Your task to perform on an android device: What's the weather? Image 0: 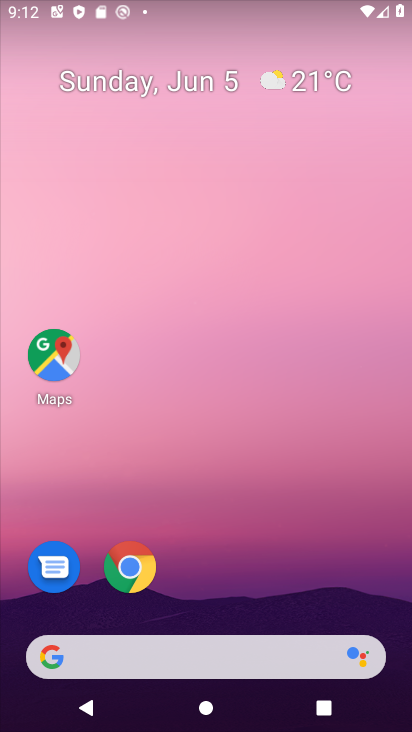
Step 0: drag from (263, 635) to (202, 242)
Your task to perform on an android device: What's the weather? Image 1: 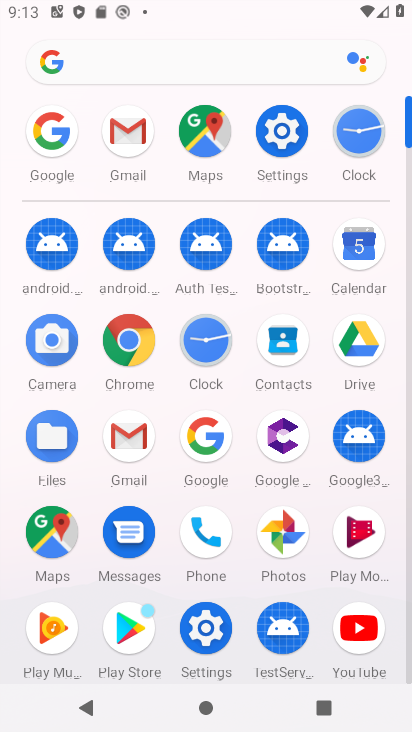
Step 1: click (211, 447)
Your task to perform on an android device: What's the weather? Image 2: 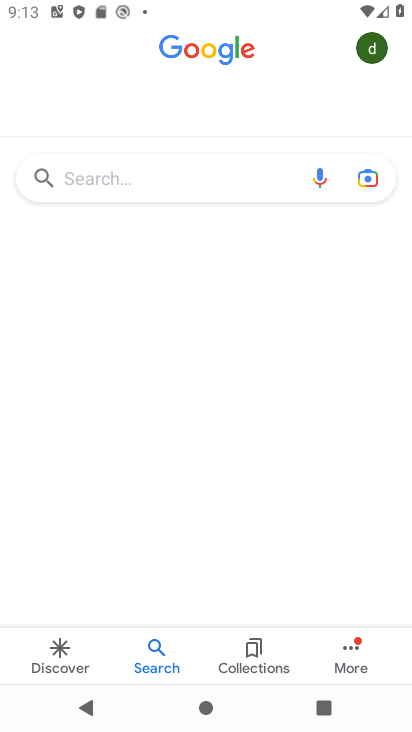
Step 2: click (146, 184)
Your task to perform on an android device: What's the weather? Image 3: 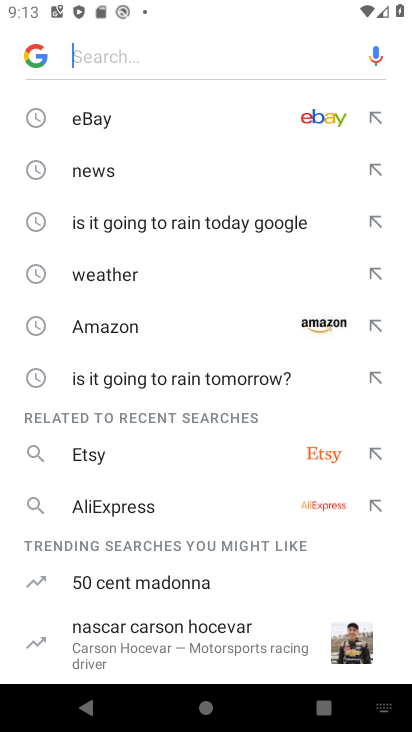
Step 3: drag from (134, 474) to (130, 121)
Your task to perform on an android device: What's the weather? Image 4: 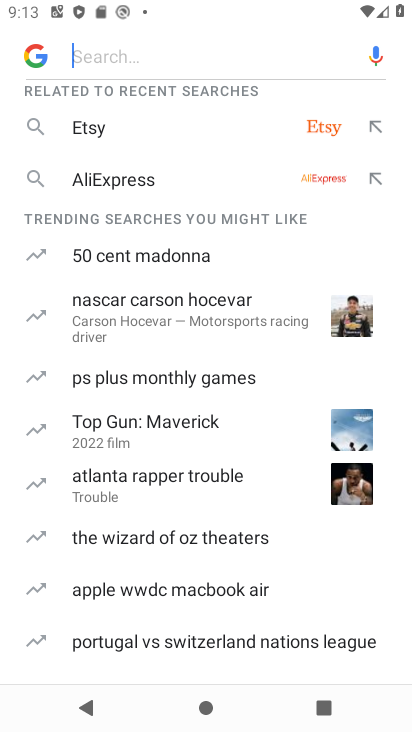
Step 4: drag from (140, 623) to (139, 344)
Your task to perform on an android device: What's the weather? Image 5: 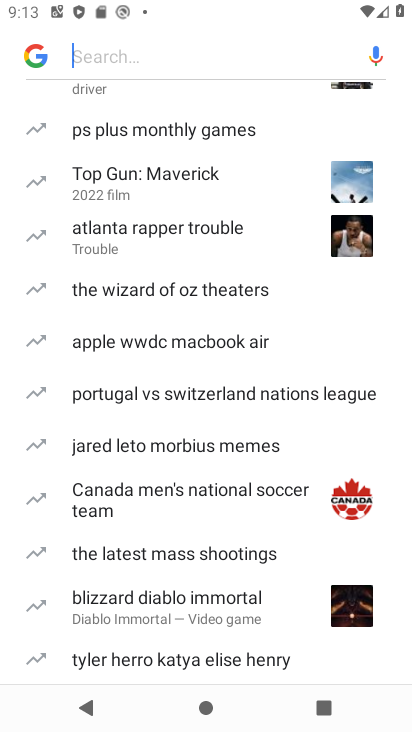
Step 5: drag from (135, 607) to (138, 338)
Your task to perform on an android device: What's the weather? Image 6: 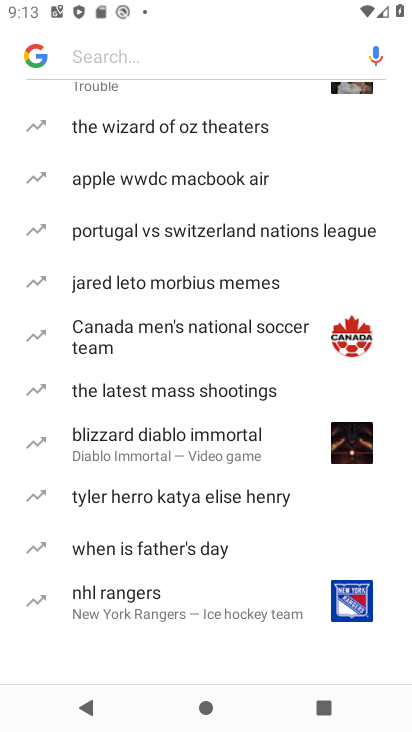
Step 6: click (122, 52)
Your task to perform on an android device: What's the weather? Image 7: 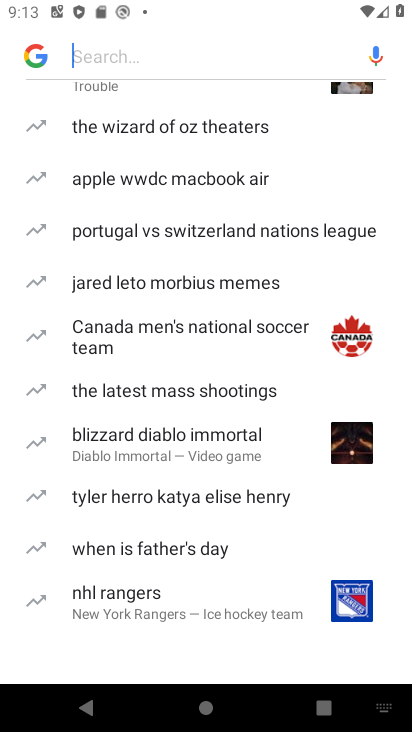
Step 7: type "weather"
Your task to perform on an android device: What's the weather? Image 8: 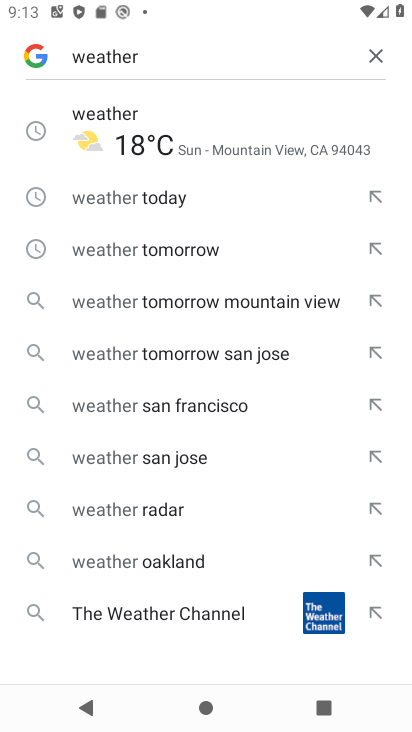
Step 8: click (210, 151)
Your task to perform on an android device: What's the weather? Image 9: 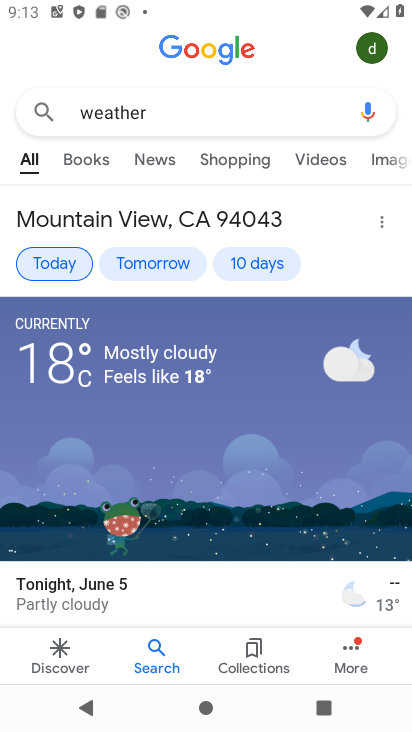
Step 9: task complete